Your task to perform on an android device: turn off airplane mode Image 0: 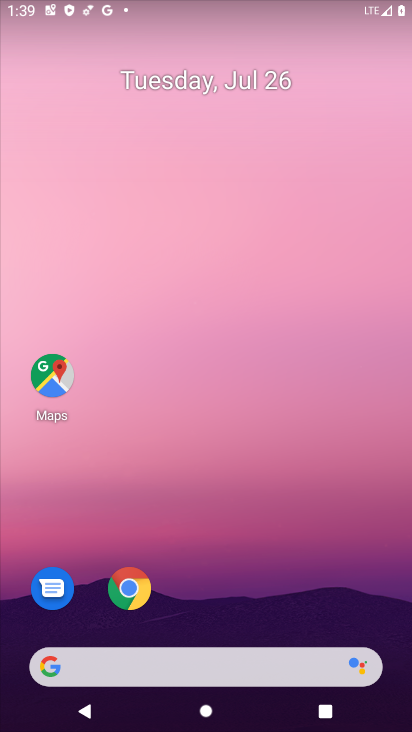
Step 0: drag from (238, 636) to (193, 153)
Your task to perform on an android device: turn off airplane mode Image 1: 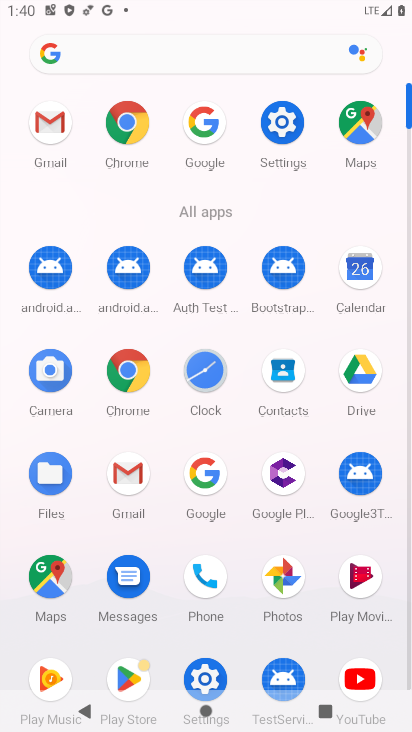
Step 1: click (273, 131)
Your task to perform on an android device: turn off airplane mode Image 2: 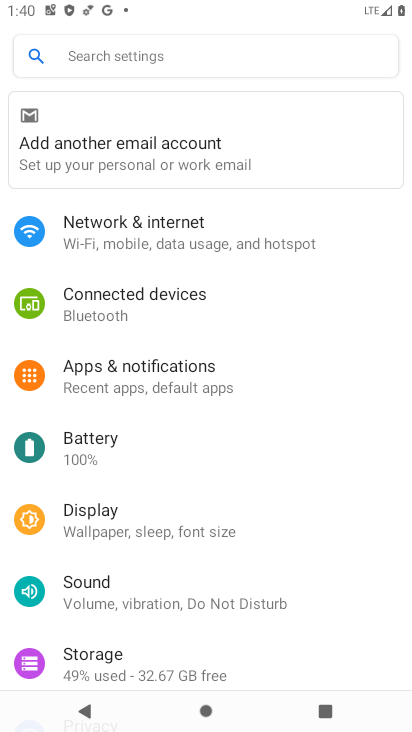
Step 2: click (126, 217)
Your task to perform on an android device: turn off airplane mode Image 3: 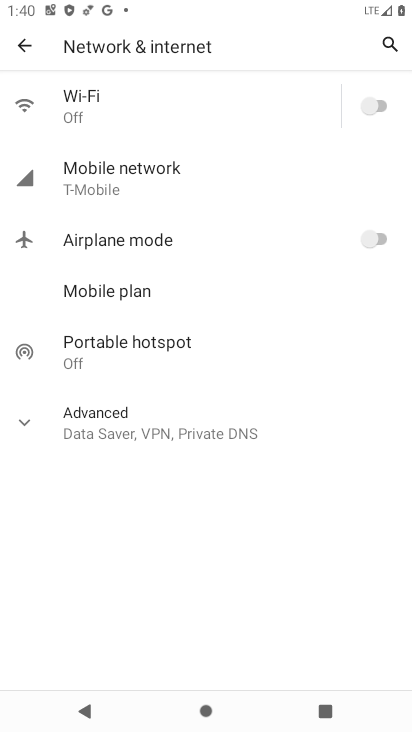
Step 3: task complete